Your task to perform on an android device: Open CNN.com Image 0: 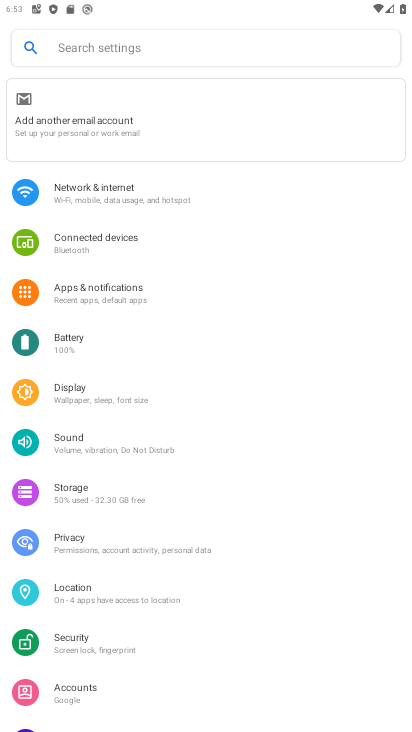
Step 0: press home button
Your task to perform on an android device: Open CNN.com Image 1: 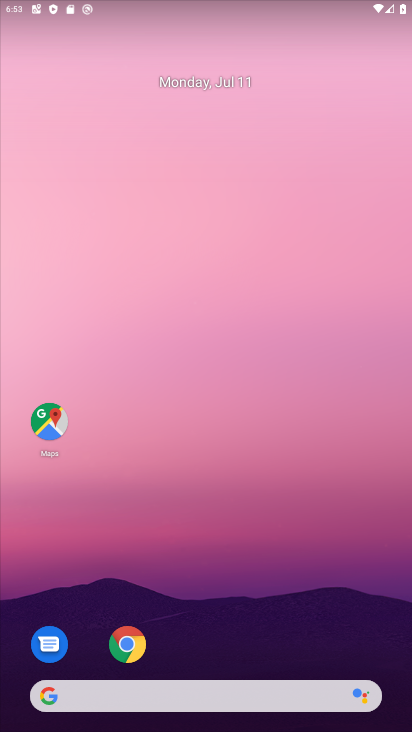
Step 1: drag from (215, 719) to (252, 96)
Your task to perform on an android device: Open CNN.com Image 2: 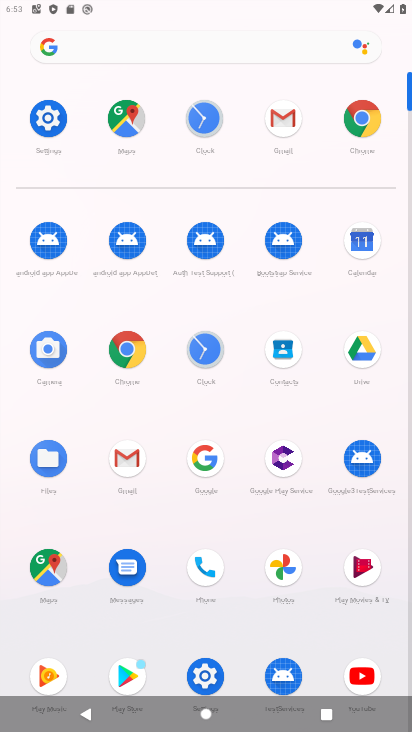
Step 2: click (132, 358)
Your task to perform on an android device: Open CNN.com Image 3: 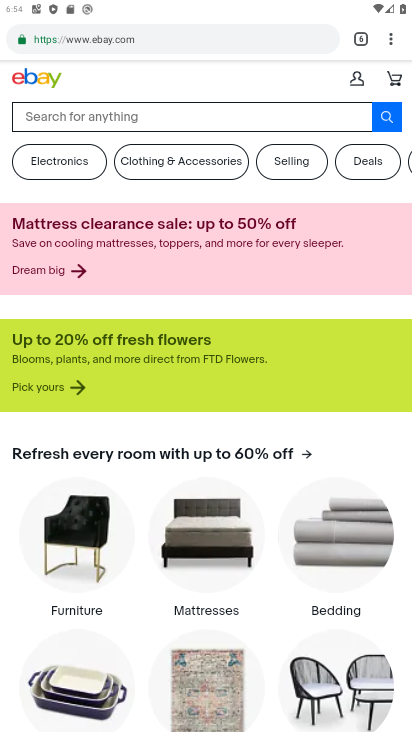
Step 3: click (85, 35)
Your task to perform on an android device: Open CNN.com Image 4: 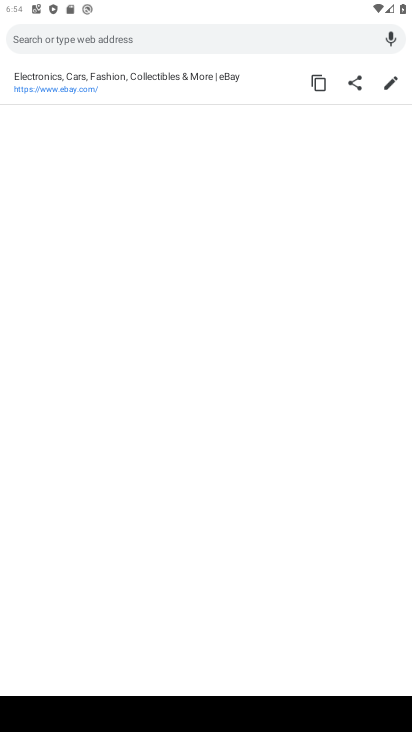
Step 4: type "cnn.com"
Your task to perform on an android device: Open CNN.com Image 5: 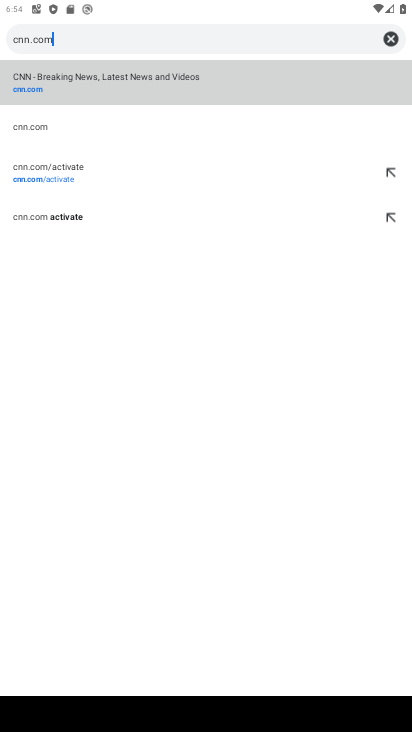
Step 5: click (98, 89)
Your task to perform on an android device: Open CNN.com Image 6: 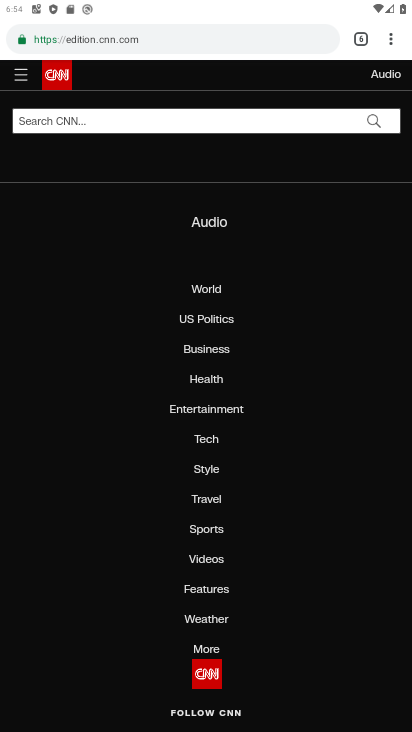
Step 6: task complete